Your task to perform on an android device: open app "DuckDuckGo Privacy Browser" (install if not already installed) and go to login screen Image 0: 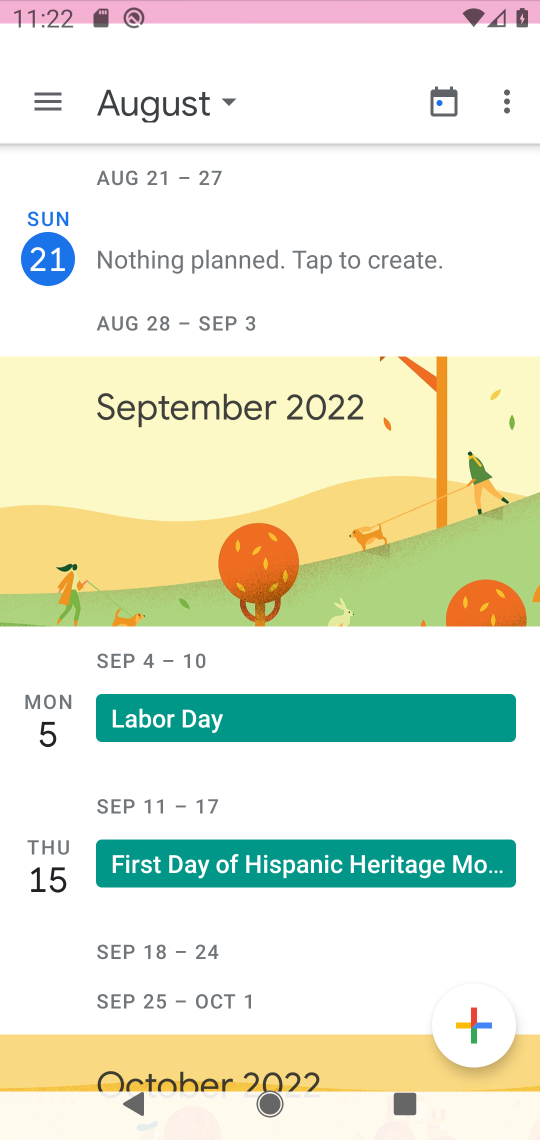
Step 0: press home button
Your task to perform on an android device: open app "DuckDuckGo Privacy Browser" (install if not already installed) and go to login screen Image 1: 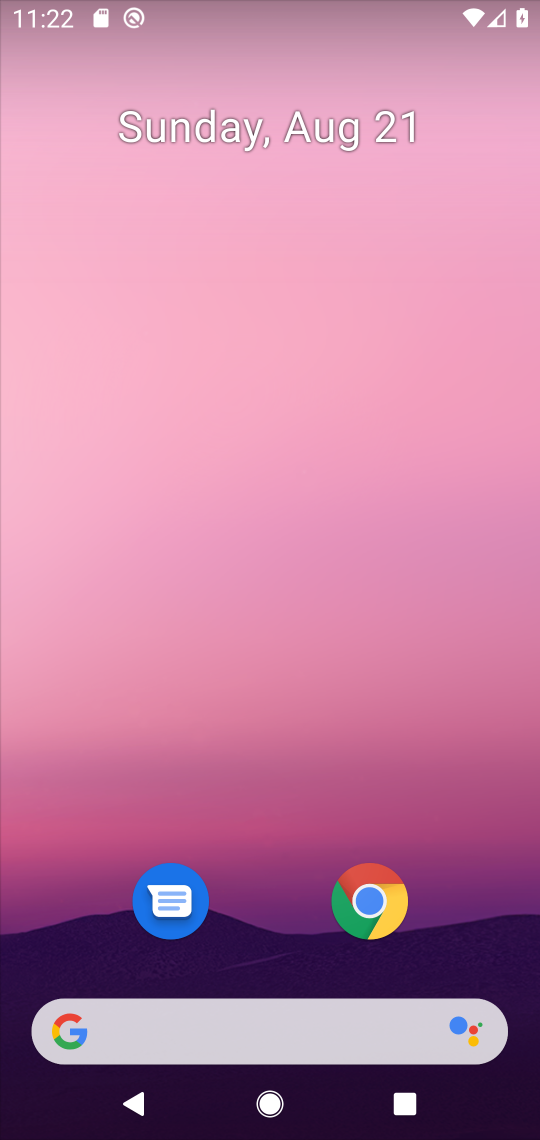
Step 1: drag from (272, 958) to (247, 51)
Your task to perform on an android device: open app "DuckDuckGo Privacy Browser" (install if not already installed) and go to login screen Image 2: 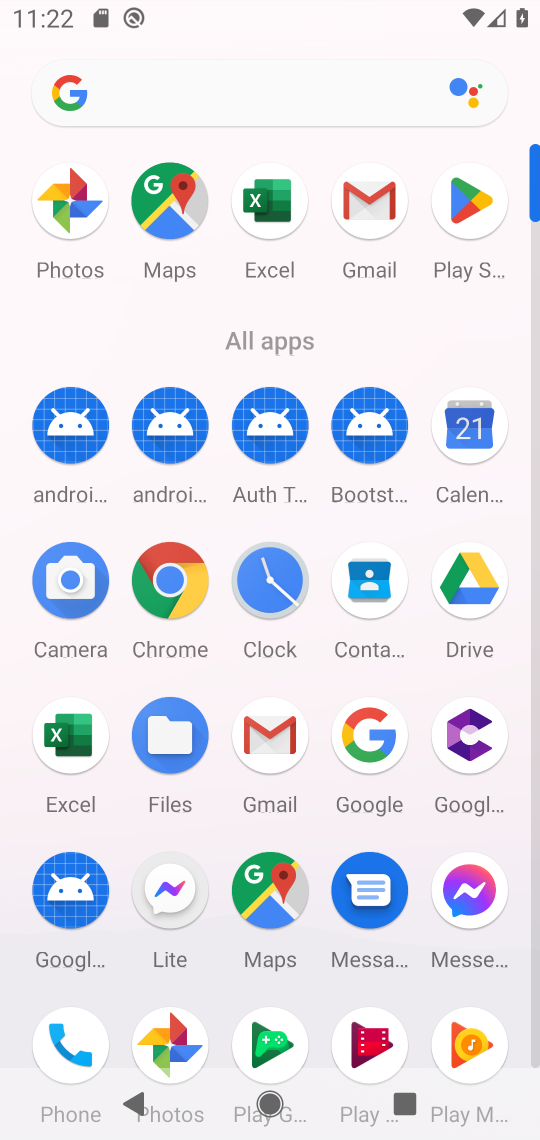
Step 2: click (455, 231)
Your task to perform on an android device: open app "DuckDuckGo Privacy Browser" (install if not already installed) and go to login screen Image 3: 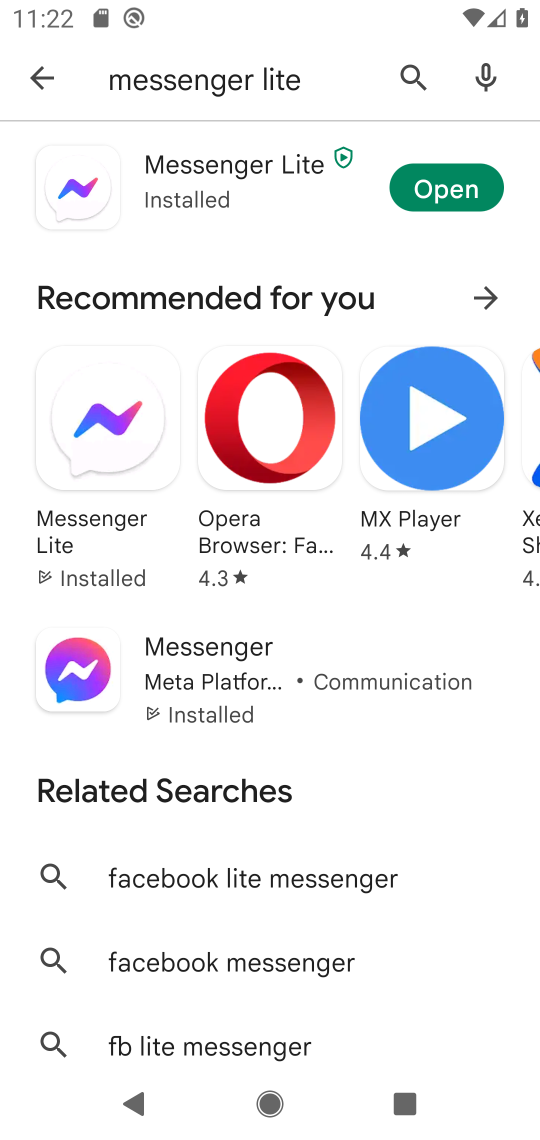
Step 3: click (404, 75)
Your task to perform on an android device: open app "DuckDuckGo Privacy Browser" (install if not already installed) and go to login screen Image 4: 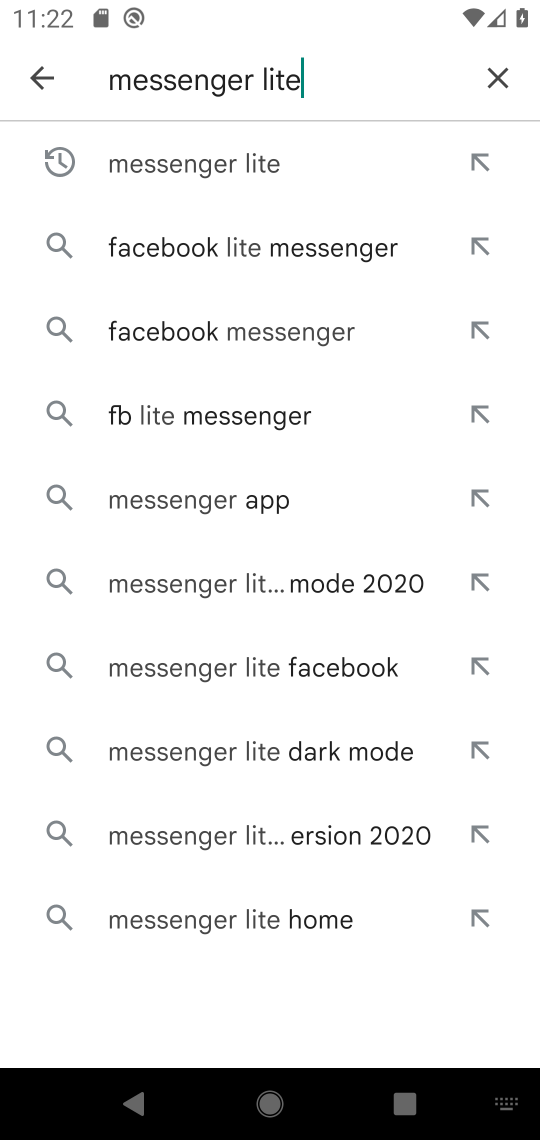
Step 4: click (475, 75)
Your task to perform on an android device: open app "DuckDuckGo Privacy Browser" (install if not already installed) and go to login screen Image 5: 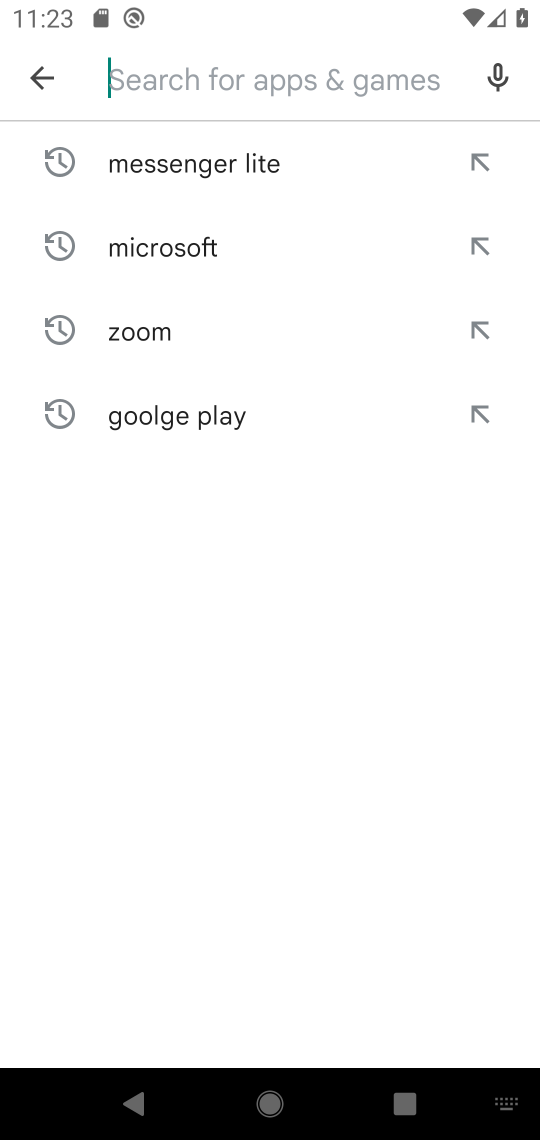
Step 5: type "duck duck go"
Your task to perform on an android device: open app "DuckDuckGo Privacy Browser" (install if not already installed) and go to login screen Image 6: 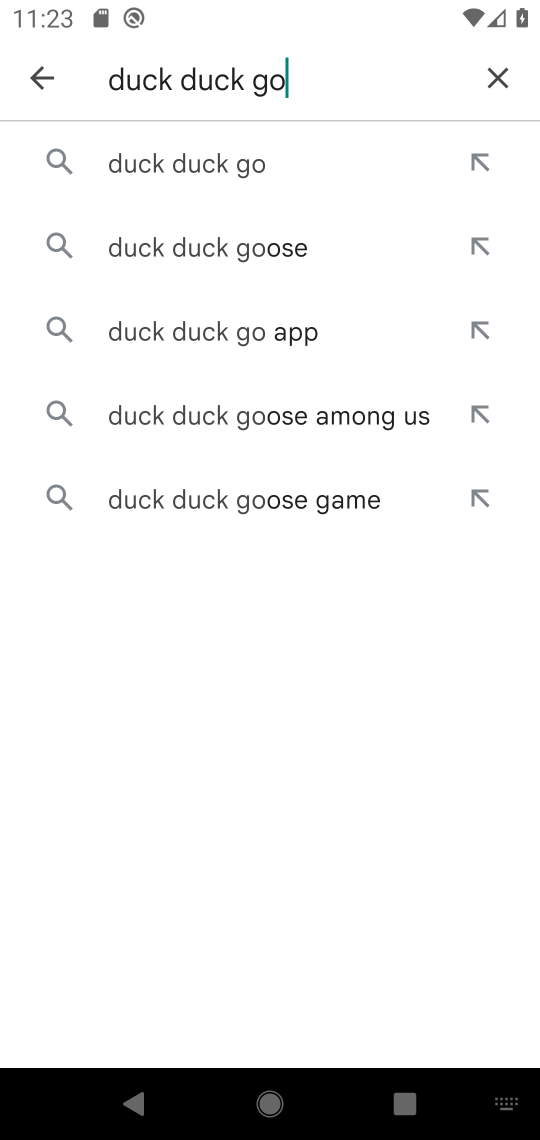
Step 6: click (211, 169)
Your task to perform on an android device: open app "DuckDuckGo Privacy Browser" (install if not already installed) and go to login screen Image 7: 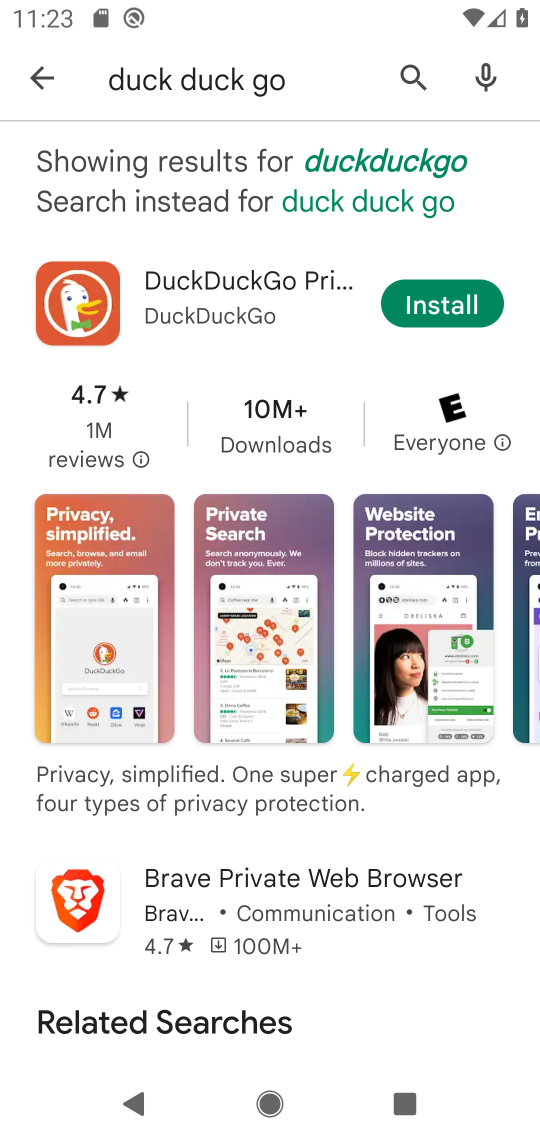
Step 7: click (420, 296)
Your task to perform on an android device: open app "DuckDuckGo Privacy Browser" (install if not already installed) and go to login screen Image 8: 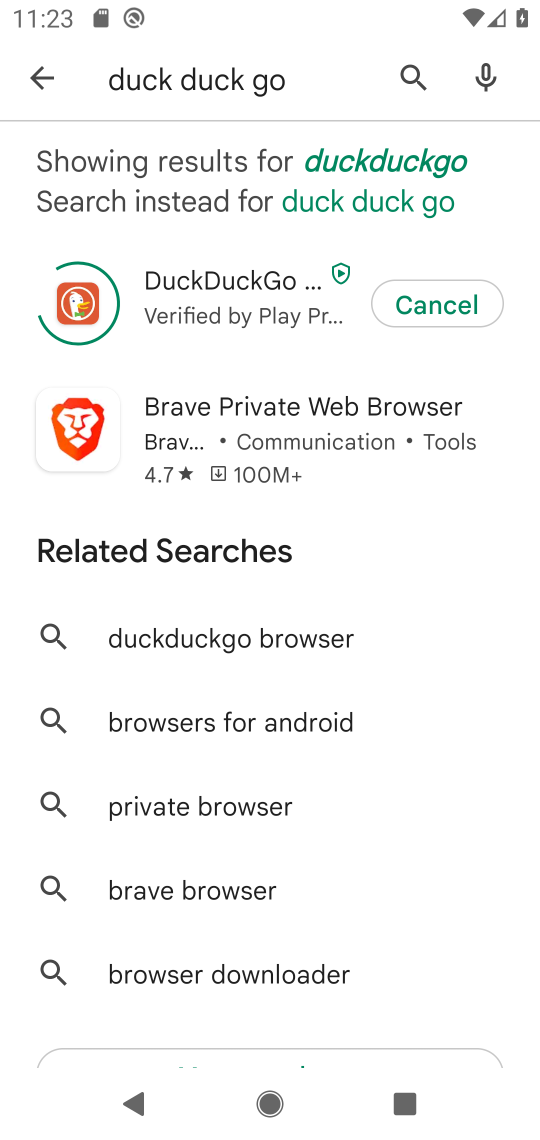
Step 8: task complete